Your task to perform on an android device: Add "logitech g903" to the cart on ebay Image 0: 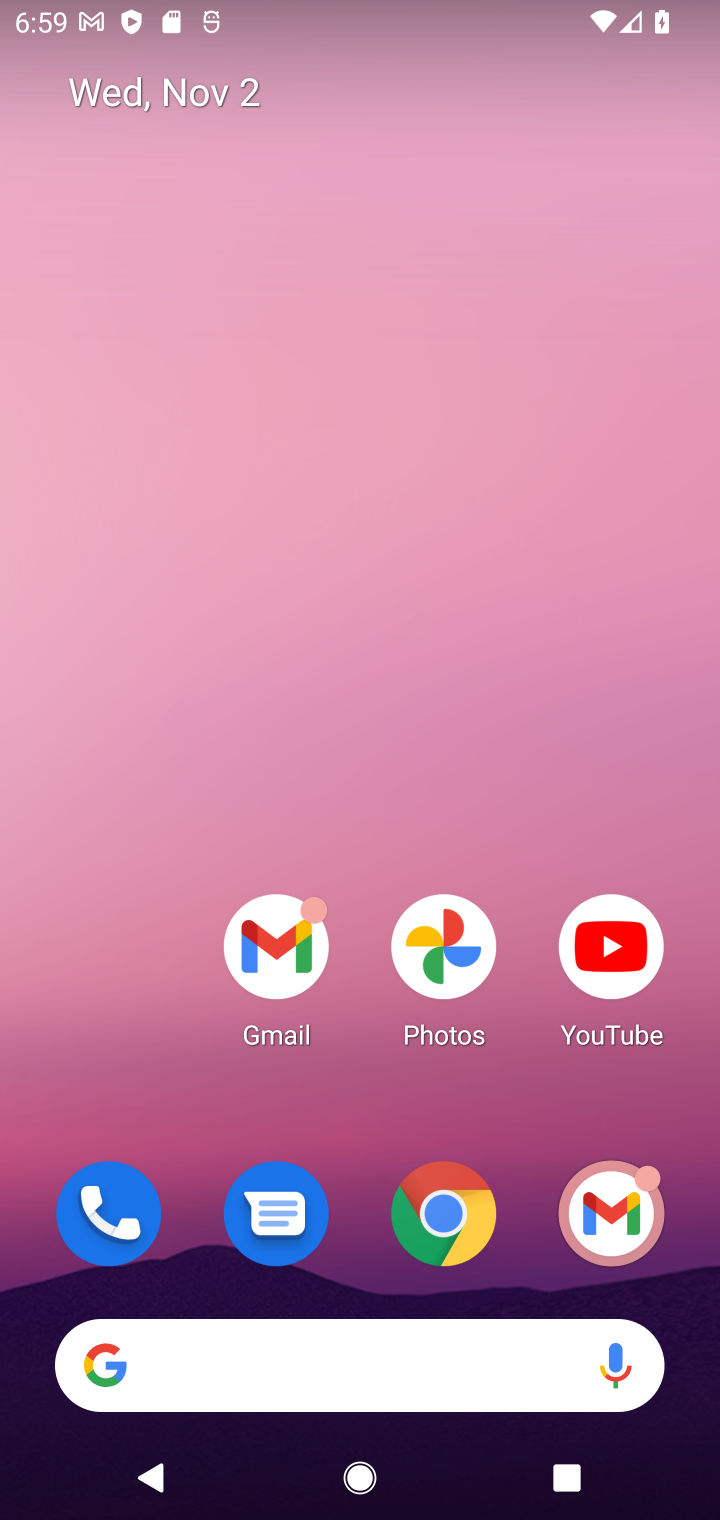
Step 0: click (440, 1218)
Your task to perform on an android device: Add "logitech g903" to the cart on ebay Image 1: 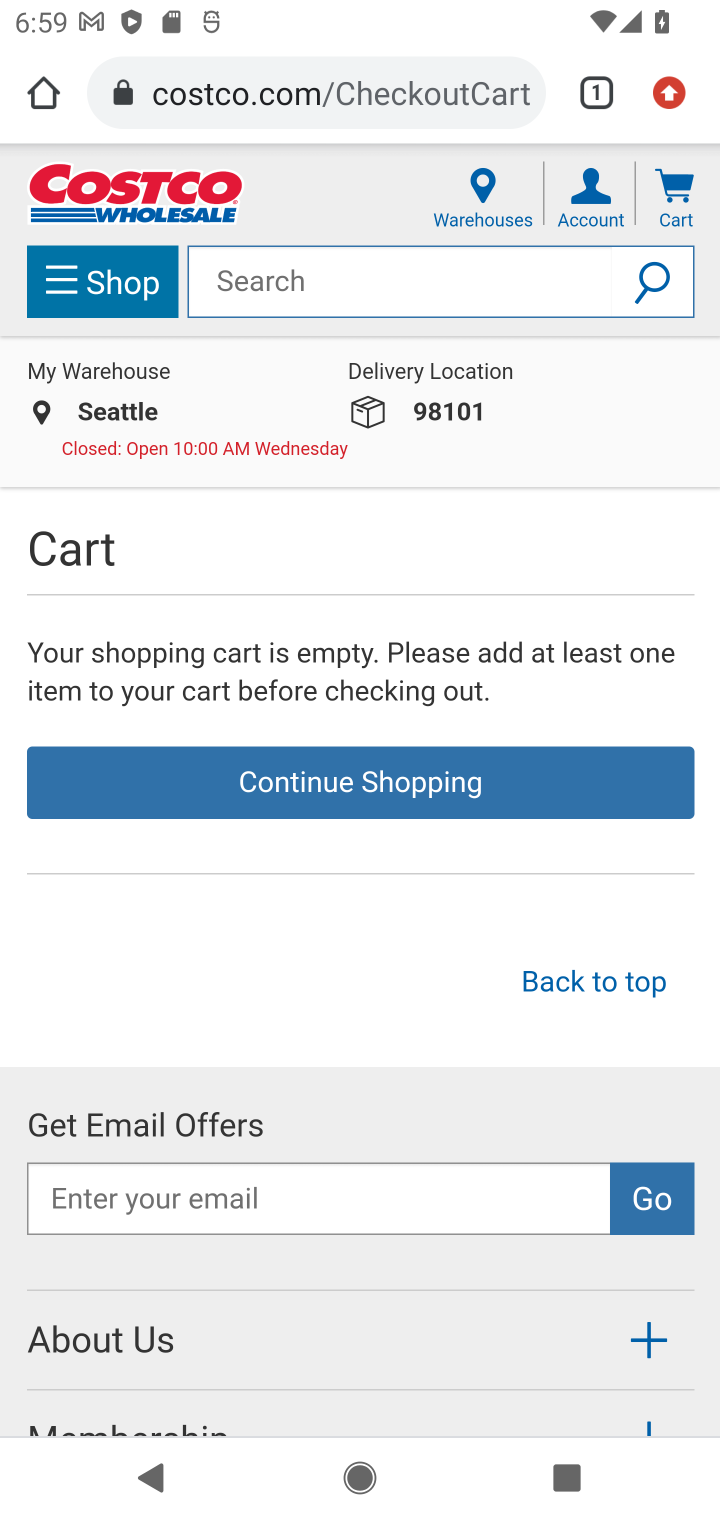
Step 1: click (378, 61)
Your task to perform on an android device: Add "logitech g903" to the cart on ebay Image 2: 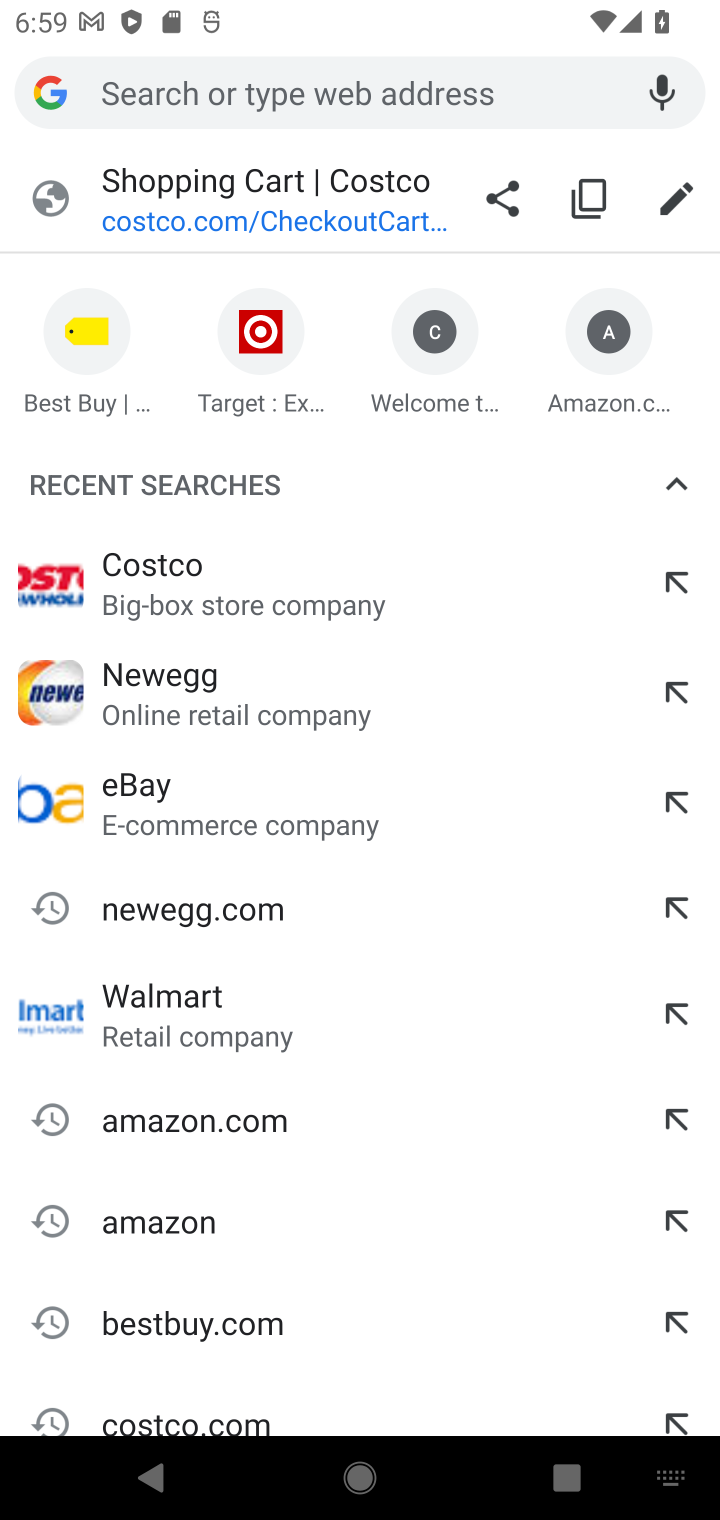
Step 2: type "ebay"
Your task to perform on an android device: Add "logitech g903" to the cart on ebay Image 3: 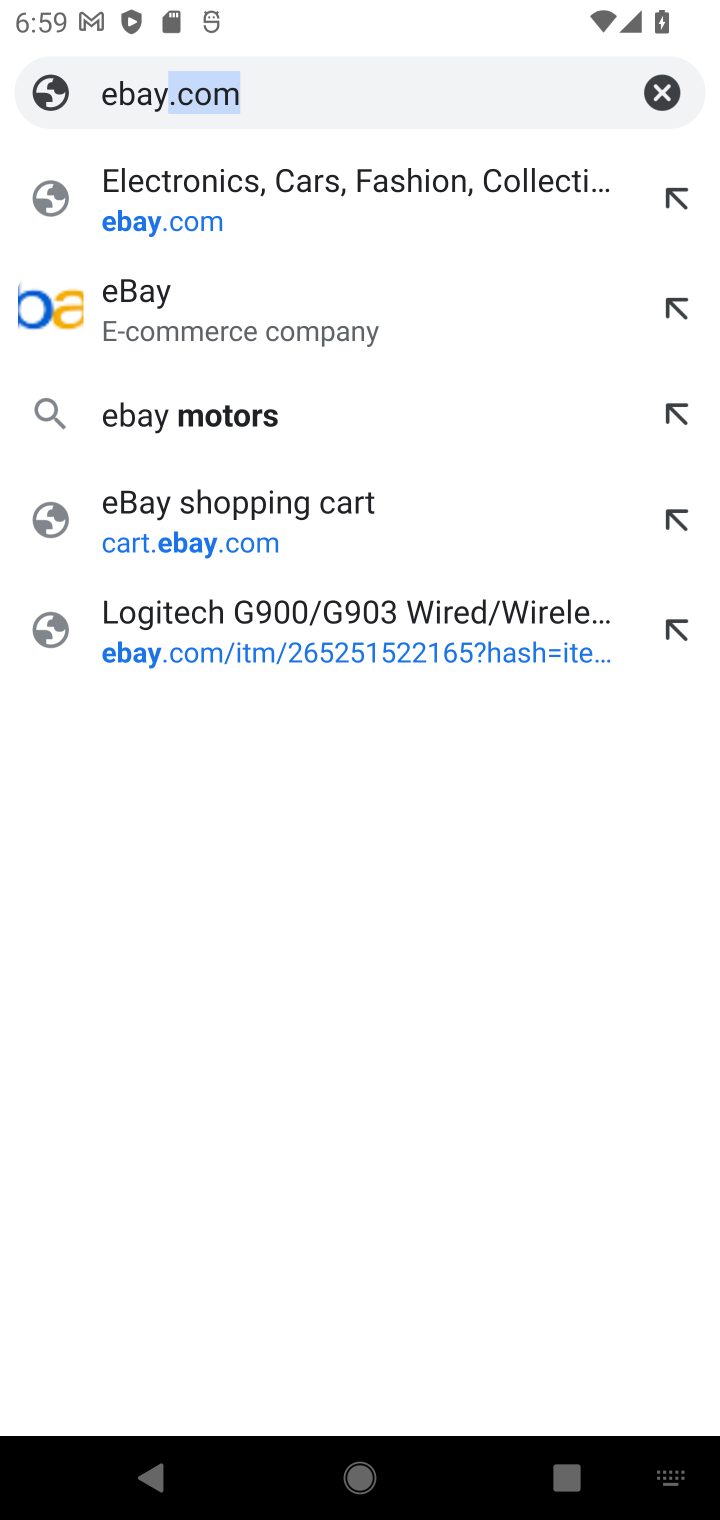
Step 3: click (151, 298)
Your task to perform on an android device: Add "logitech g903" to the cart on ebay Image 4: 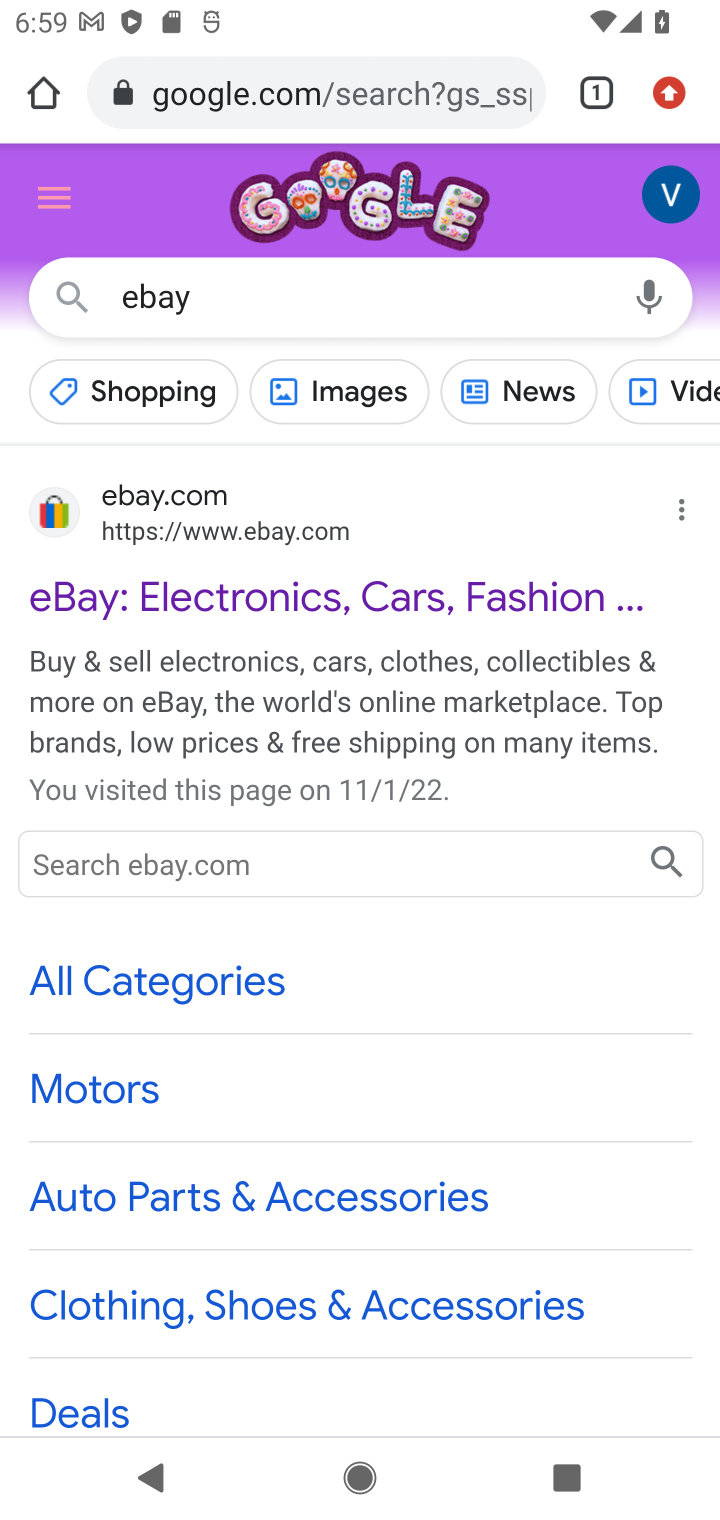
Step 4: click (268, 593)
Your task to perform on an android device: Add "logitech g903" to the cart on ebay Image 5: 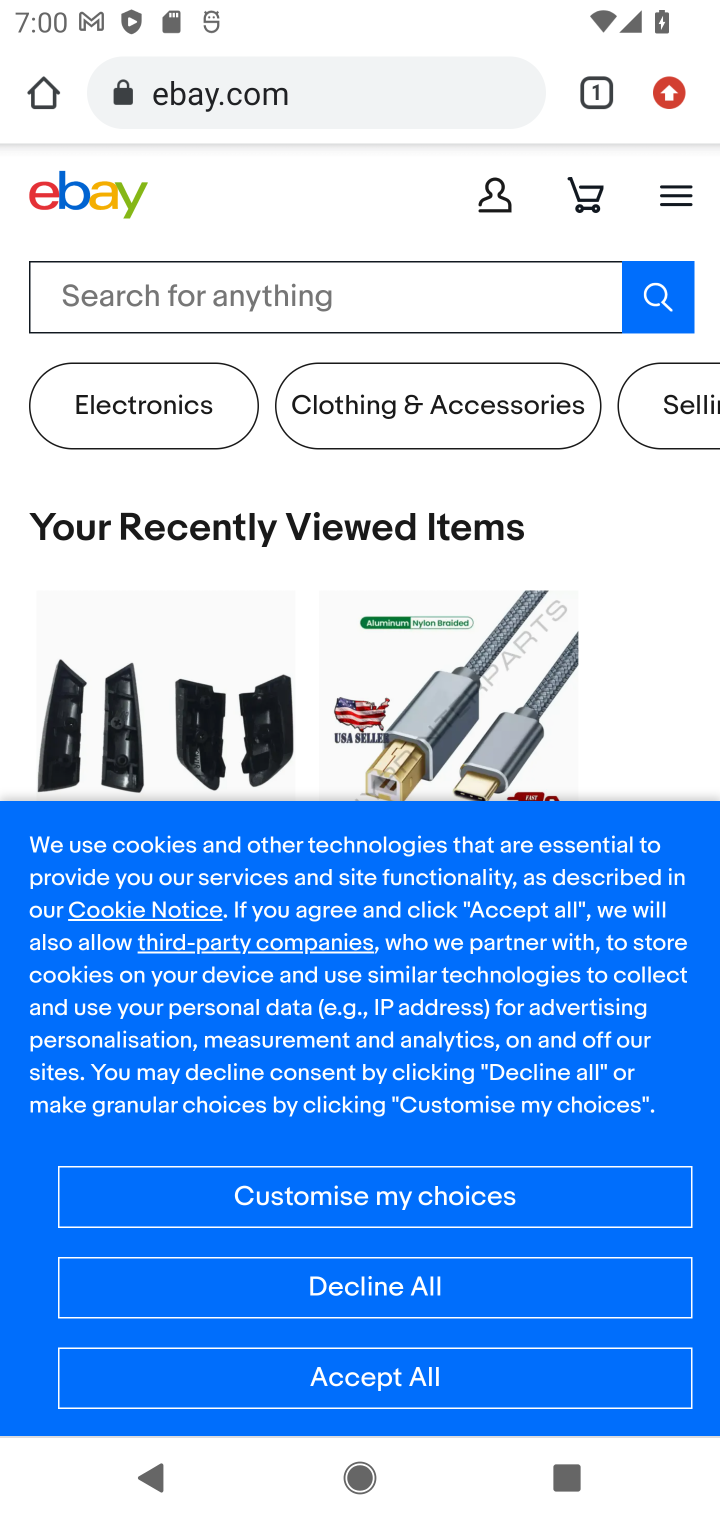
Step 5: click (358, 1376)
Your task to perform on an android device: Add "logitech g903" to the cart on ebay Image 6: 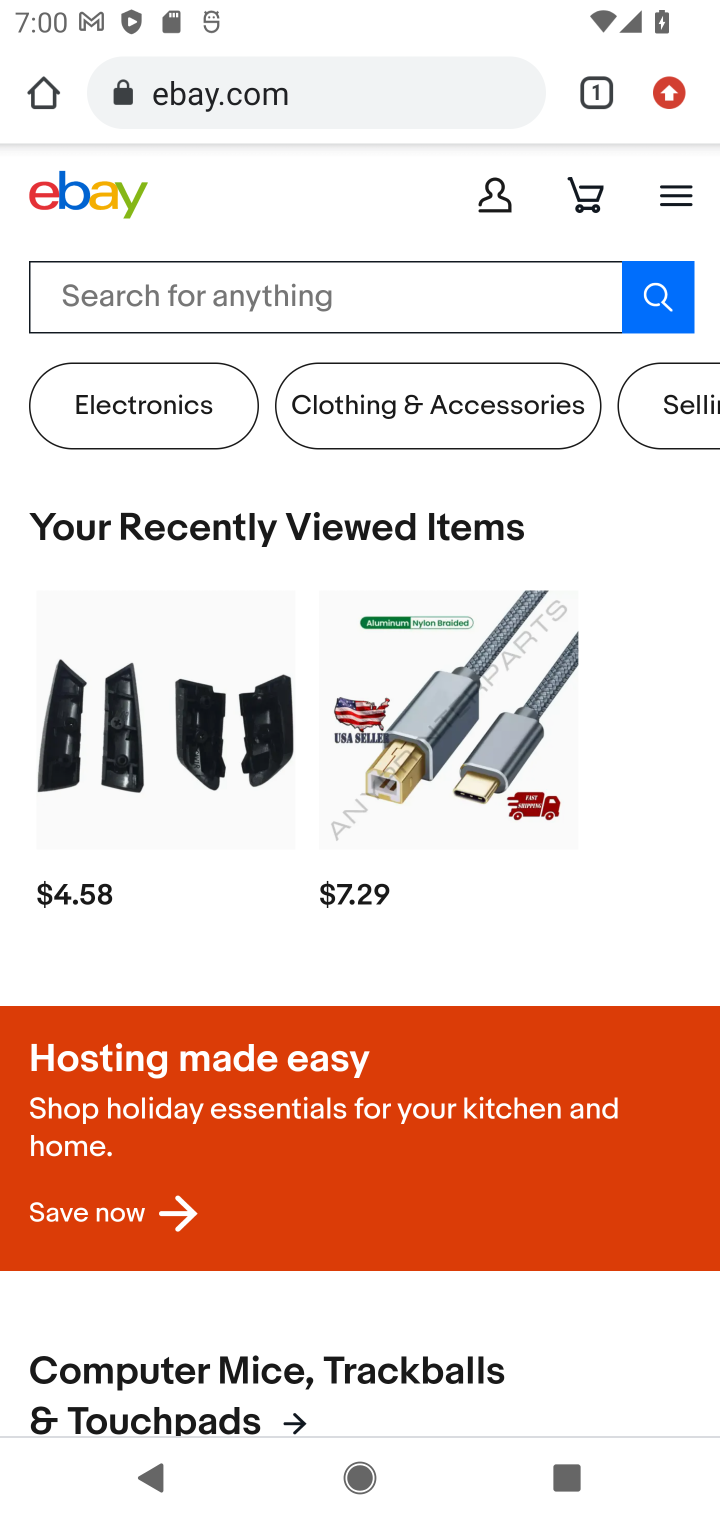
Step 6: click (217, 294)
Your task to perform on an android device: Add "logitech g903" to the cart on ebay Image 7: 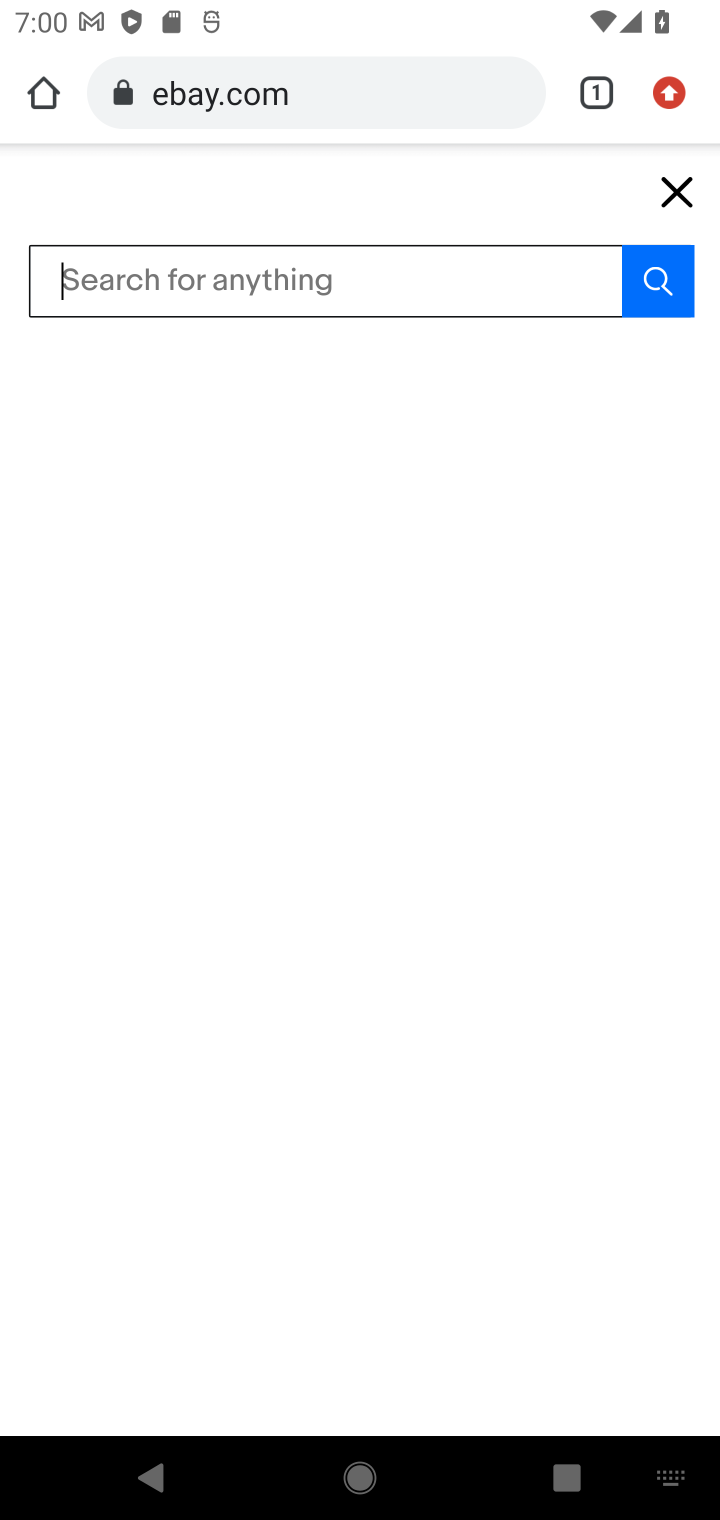
Step 7: type "ebay"
Your task to perform on an android device: Add "logitech g903" to the cart on ebay Image 8: 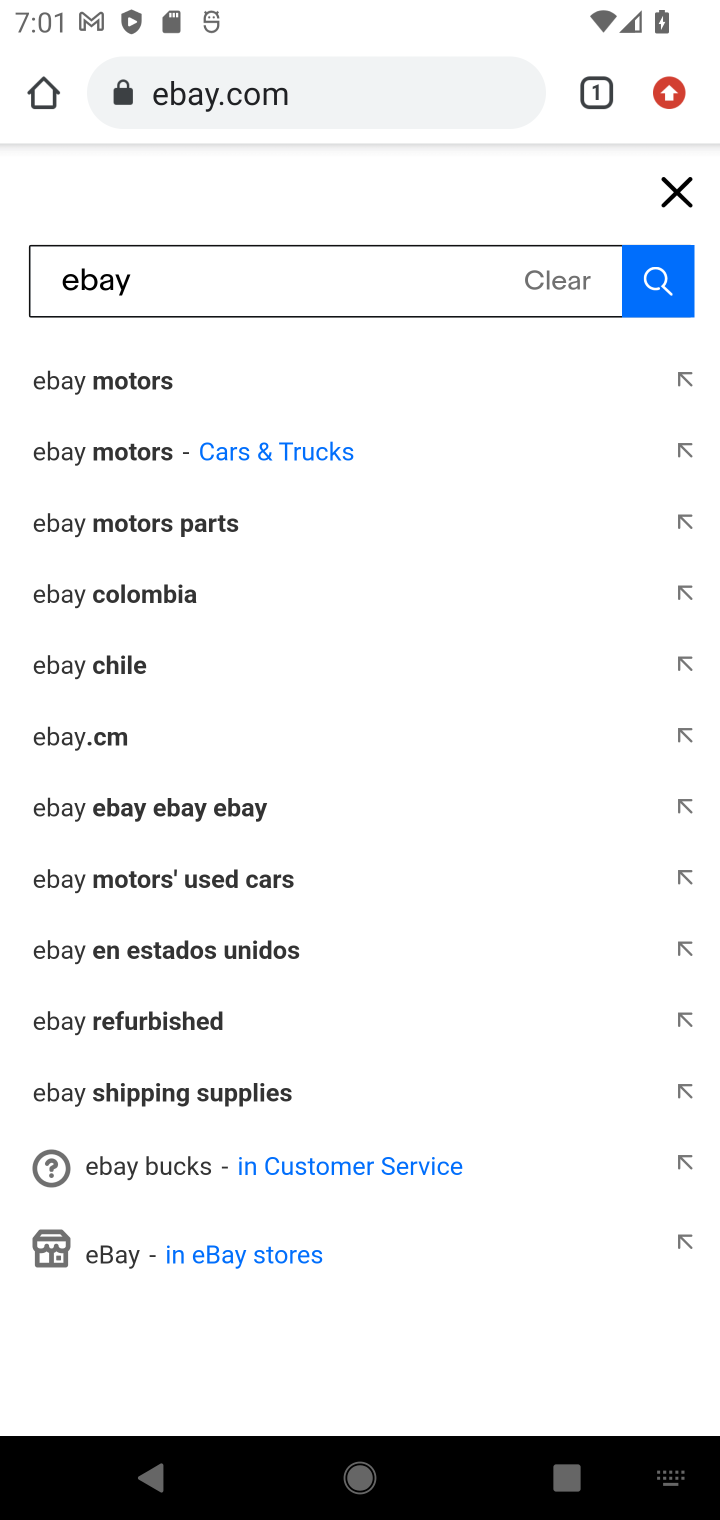
Step 8: click (563, 279)
Your task to perform on an android device: Add "logitech g903" to the cart on ebay Image 9: 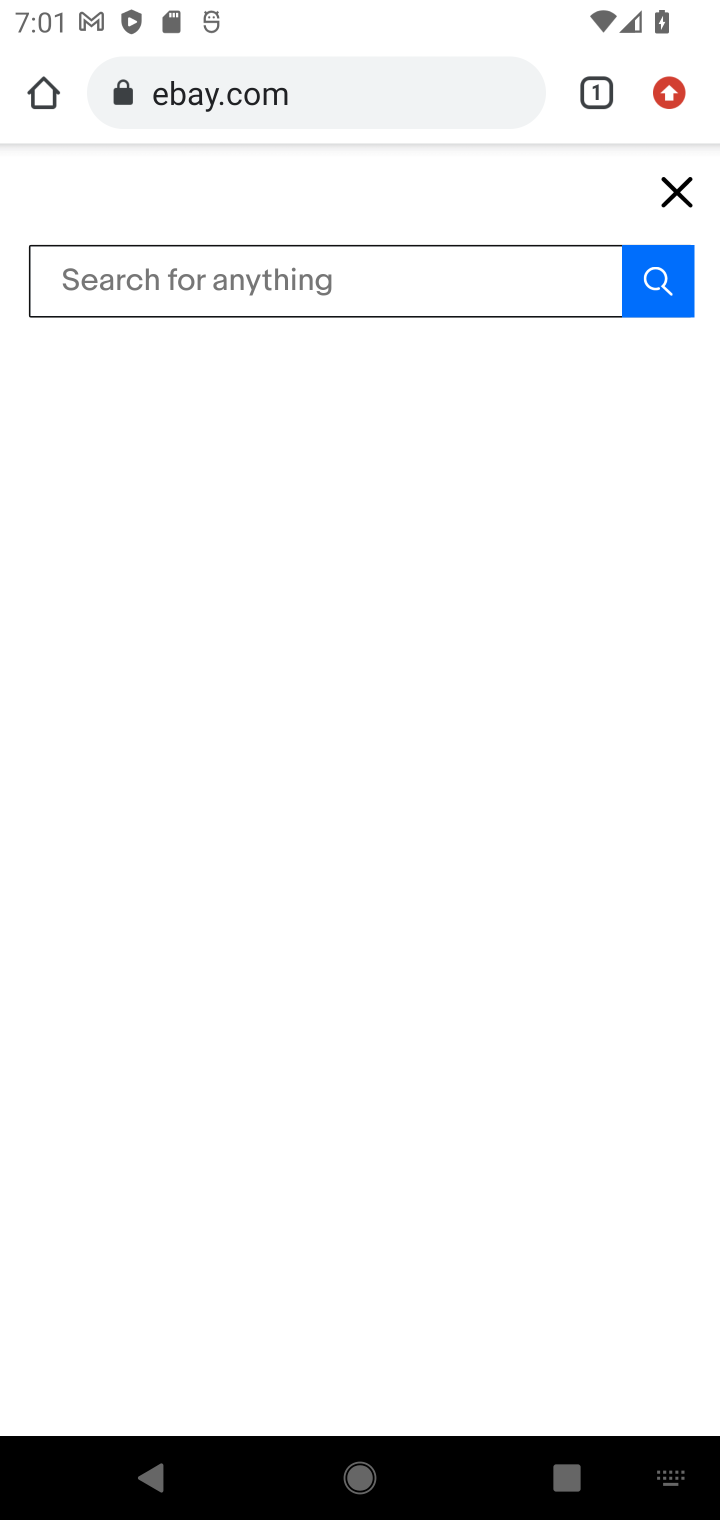
Step 9: type "logitech g903"
Your task to perform on an android device: Add "logitech g903" to the cart on ebay Image 10: 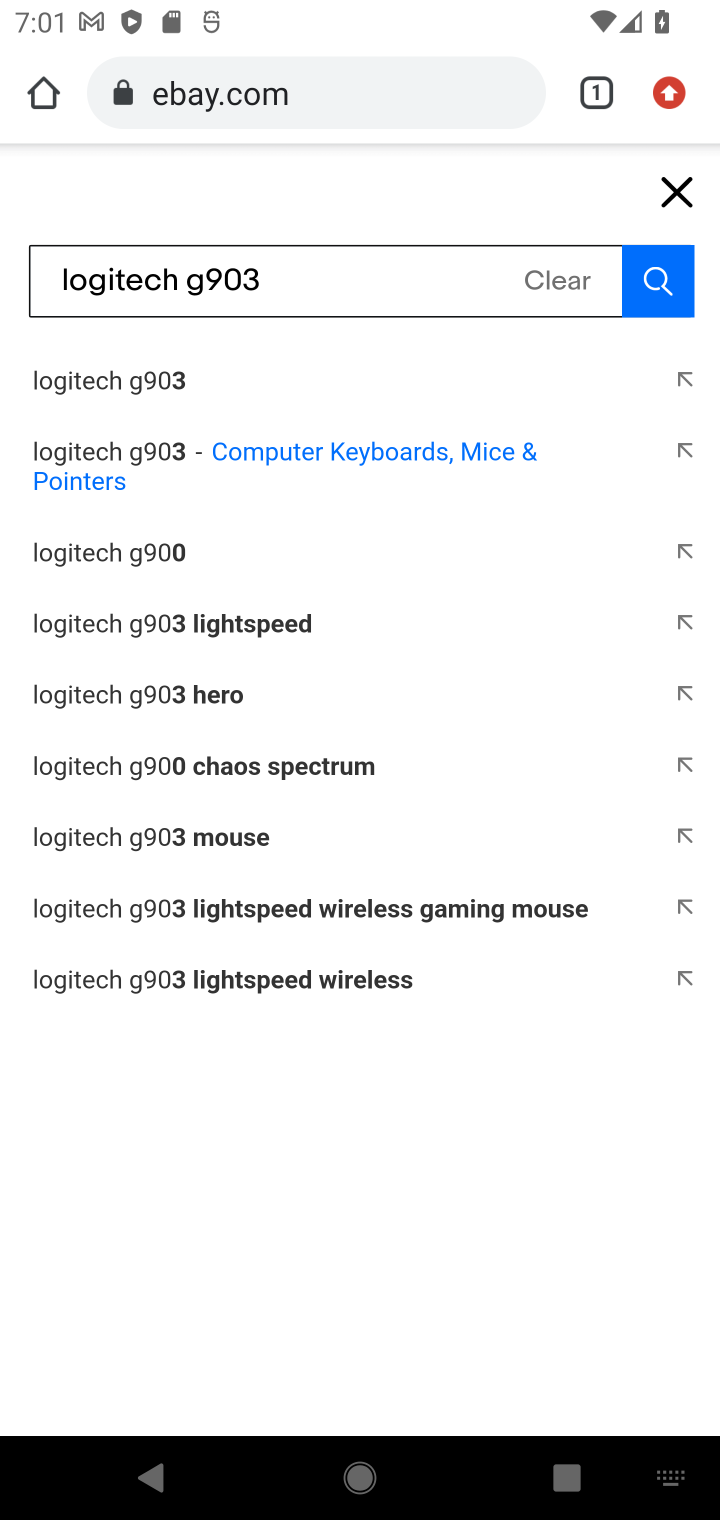
Step 10: click (96, 379)
Your task to perform on an android device: Add "logitech g903" to the cart on ebay Image 11: 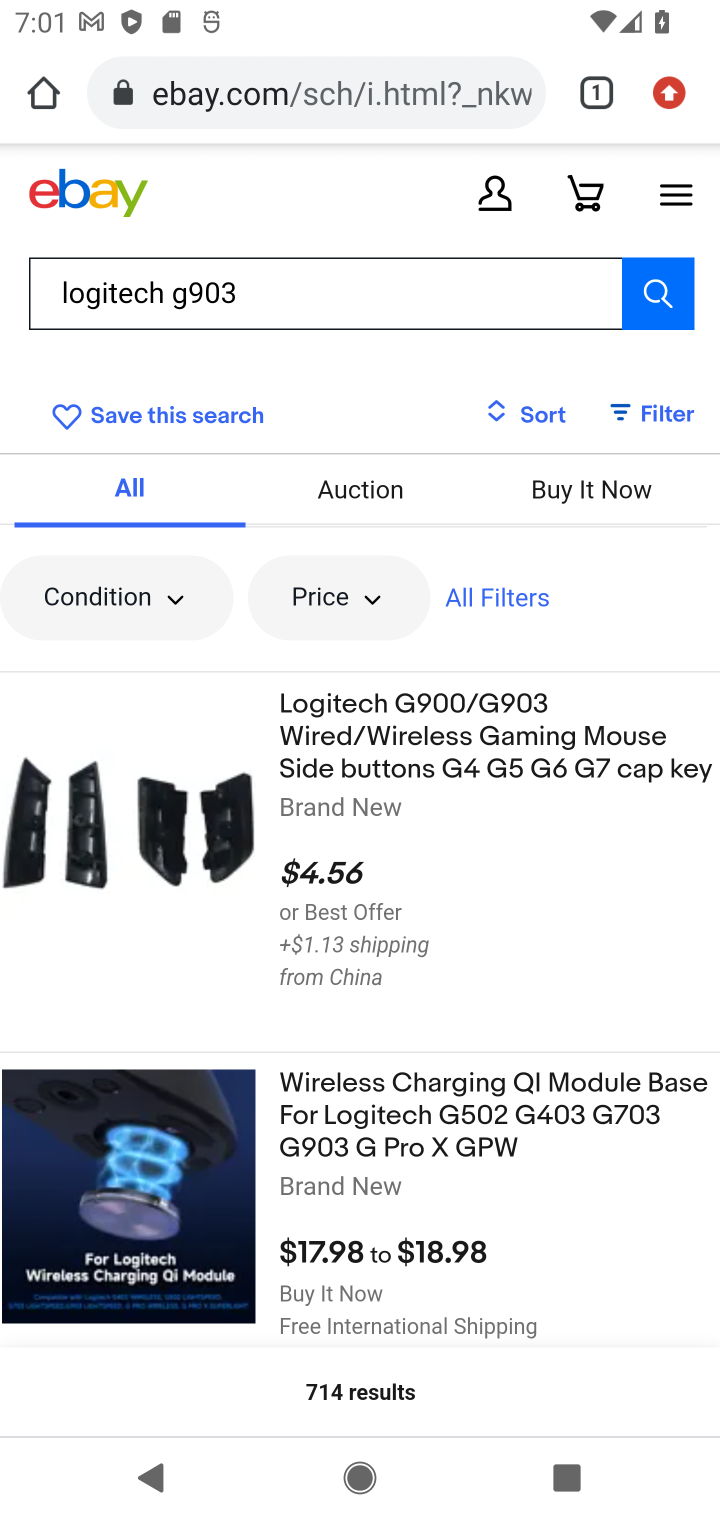
Step 11: click (526, 727)
Your task to perform on an android device: Add "logitech g903" to the cart on ebay Image 12: 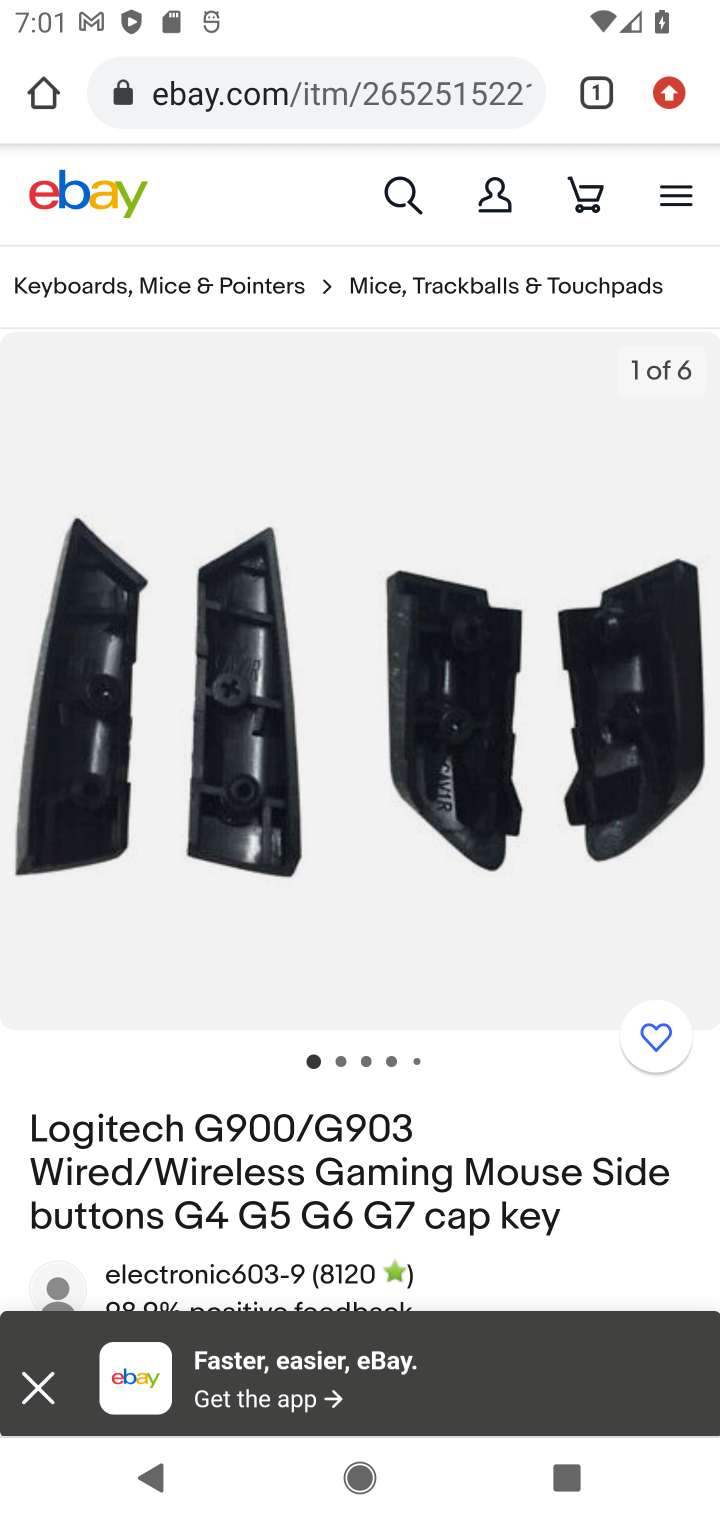
Step 12: drag from (491, 1106) to (401, 216)
Your task to perform on an android device: Add "logitech g903" to the cart on ebay Image 13: 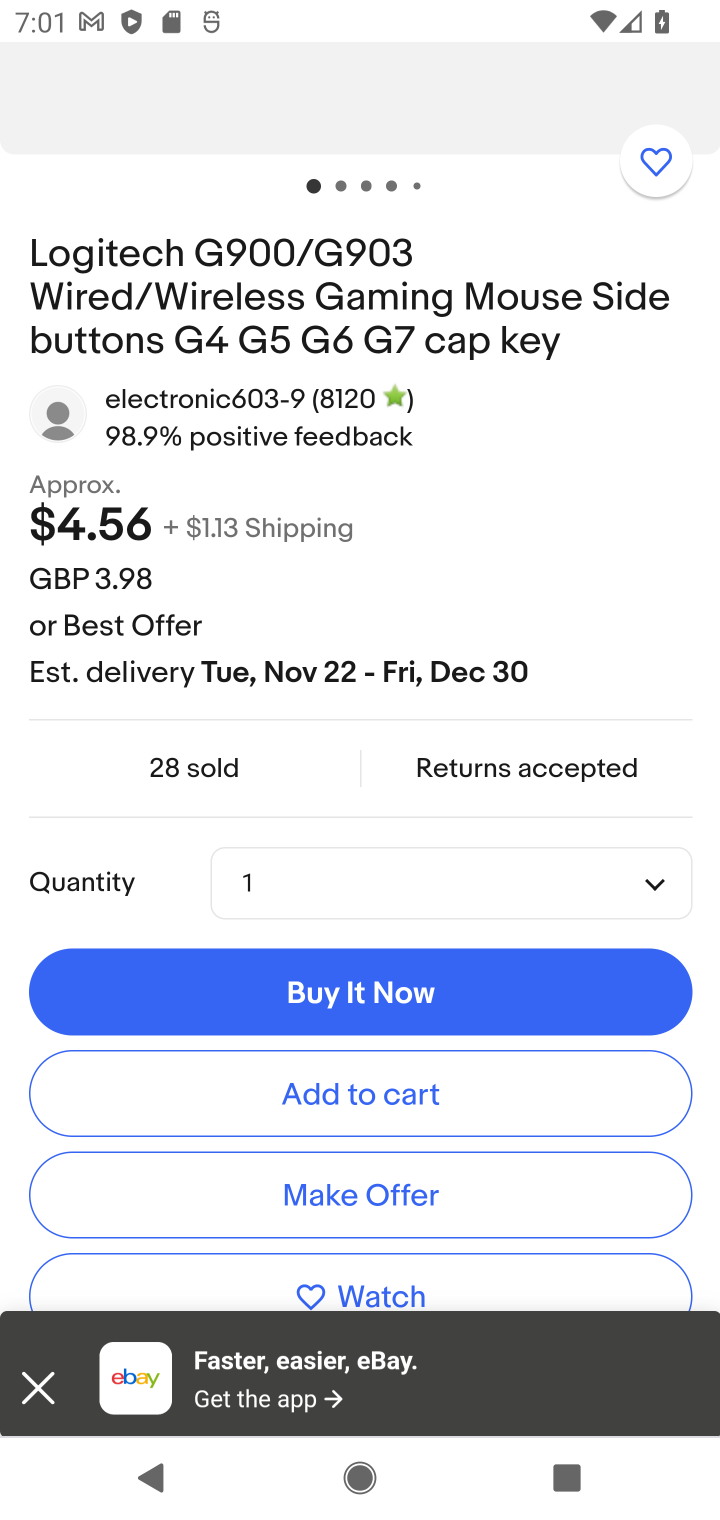
Step 13: click (361, 1100)
Your task to perform on an android device: Add "logitech g903" to the cart on ebay Image 14: 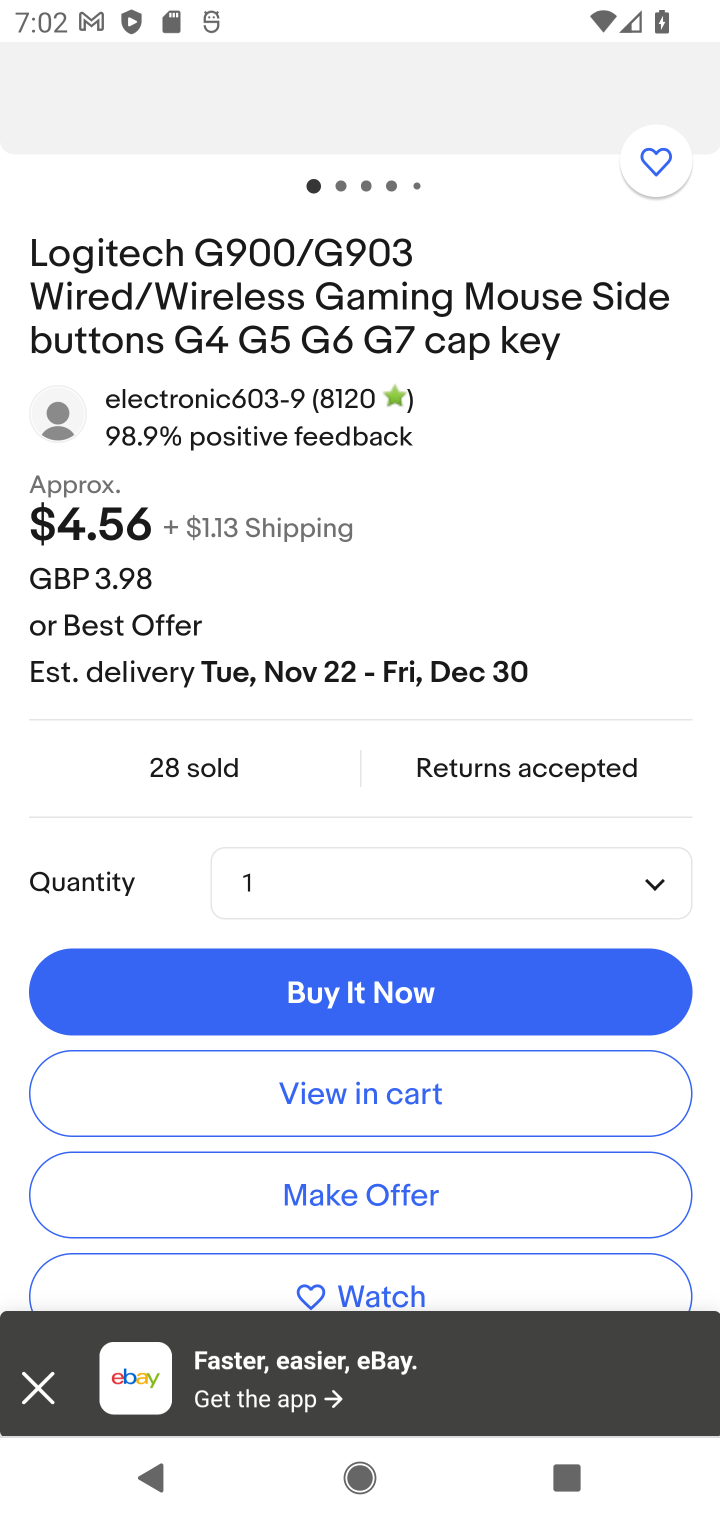
Step 14: task complete